Your task to perform on an android device: Set the phone to "Do not disturb". Image 0: 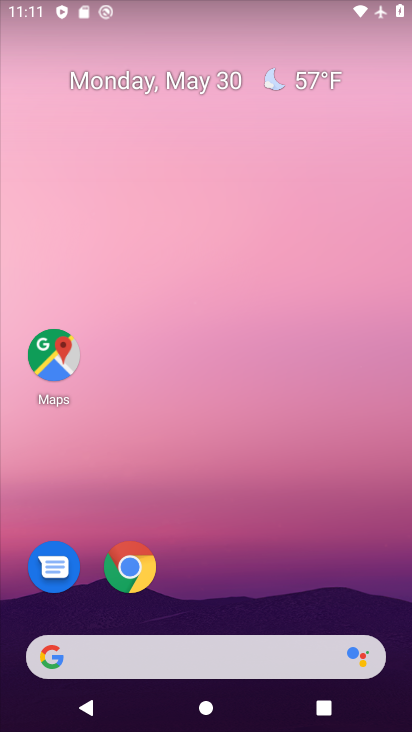
Step 0: drag from (182, 600) to (213, 270)
Your task to perform on an android device: Set the phone to "Do not disturb". Image 1: 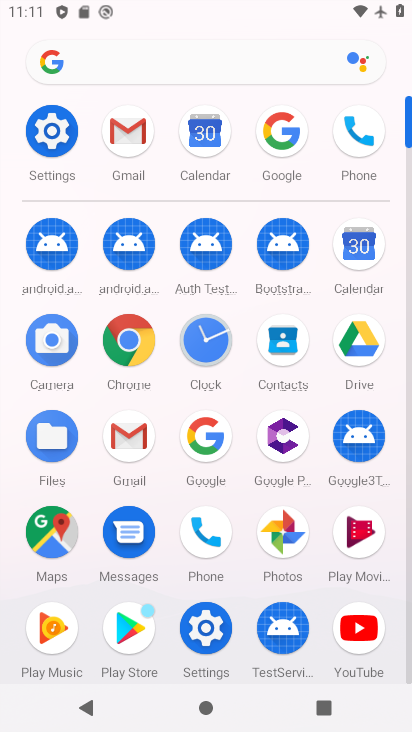
Step 1: click (39, 131)
Your task to perform on an android device: Set the phone to "Do not disturb". Image 2: 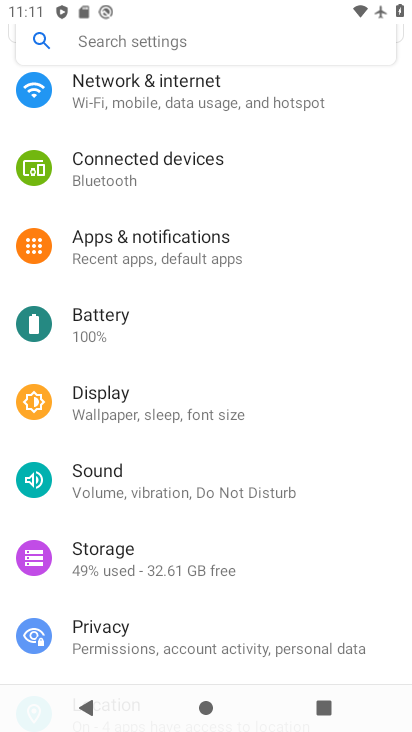
Step 2: click (178, 484)
Your task to perform on an android device: Set the phone to "Do not disturb". Image 3: 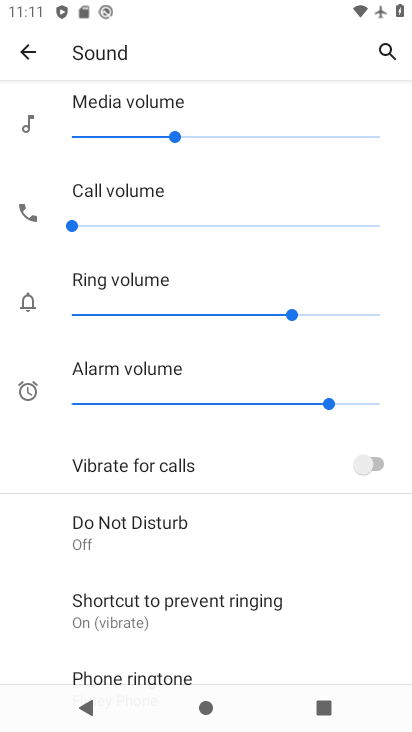
Step 3: drag from (200, 562) to (167, 206)
Your task to perform on an android device: Set the phone to "Do not disturb". Image 4: 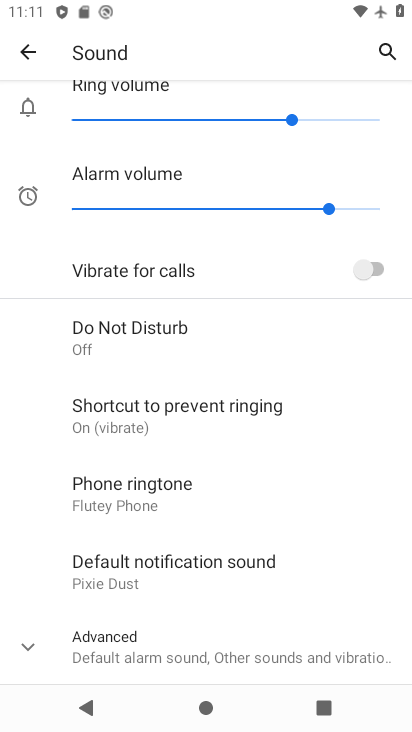
Step 4: drag from (140, 574) to (146, 273)
Your task to perform on an android device: Set the phone to "Do not disturb". Image 5: 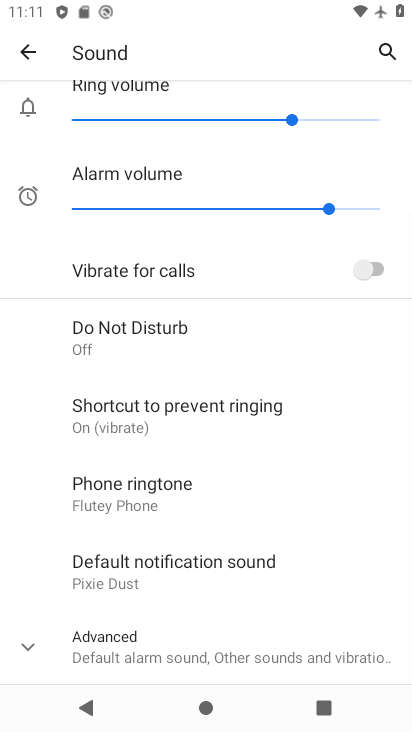
Step 5: click (144, 644)
Your task to perform on an android device: Set the phone to "Do not disturb". Image 6: 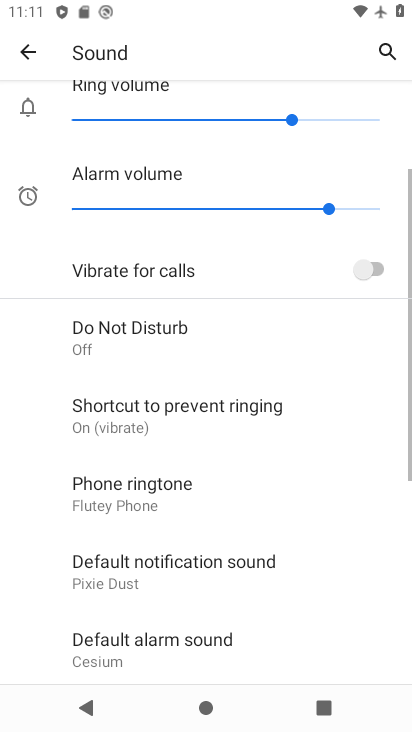
Step 6: drag from (142, 645) to (138, 265)
Your task to perform on an android device: Set the phone to "Do not disturb". Image 7: 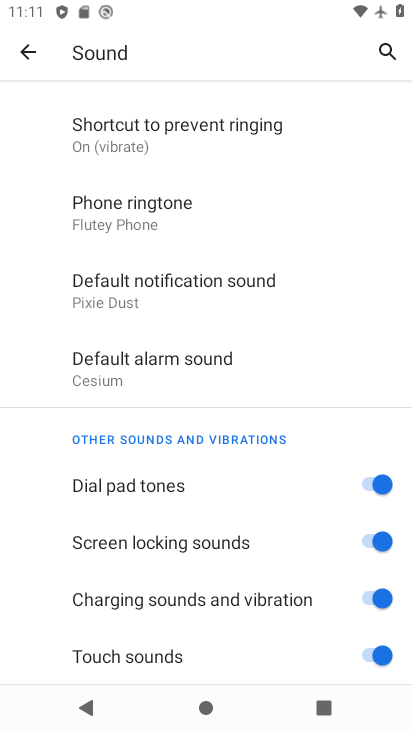
Step 7: drag from (142, 170) to (141, 422)
Your task to perform on an android device: Set the phone to "Do not disturb". Image 8: 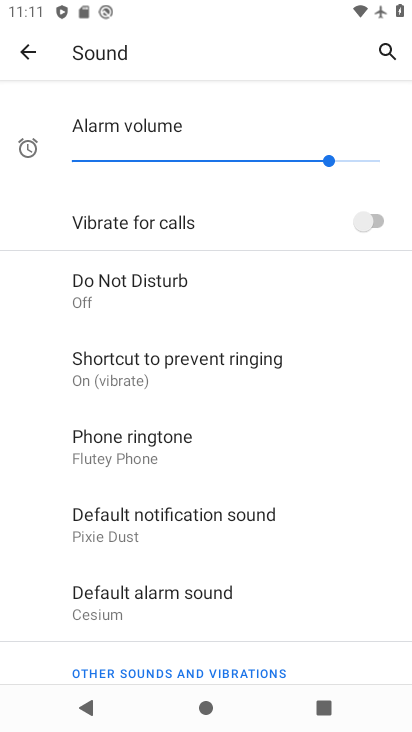
Step 8: click (135, 319)
Your task to perform on an android device: Set the phone to "Do not disturb". Image 9: 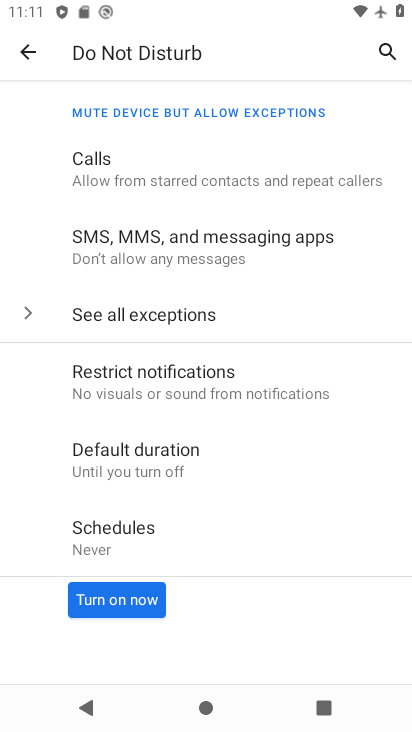
Step 9: click (59, 602)
Your task to perform on an android device: Set the phone to "Do not disturb". Image 10: 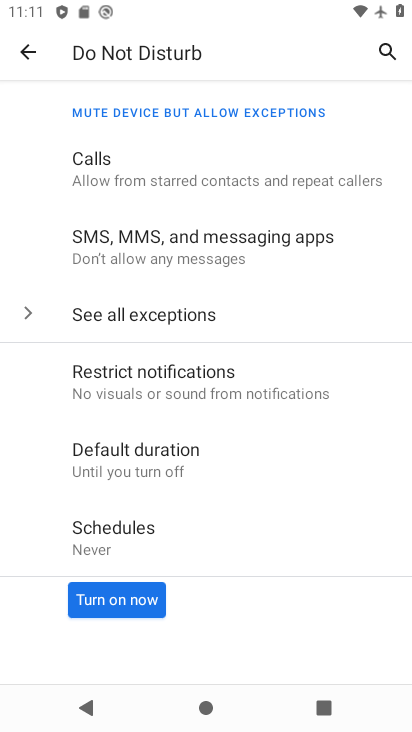
Step 10: click (76, 607)
Your task to perform on an android device: Set the phone to "Do not disturb". Image 11: 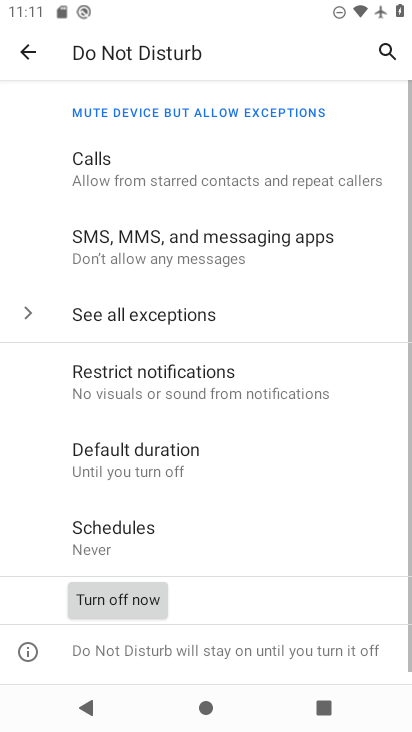
Step 11: task complete